Your task to perform on an android device: remove spam from my inbox in the gmail app Image 0: 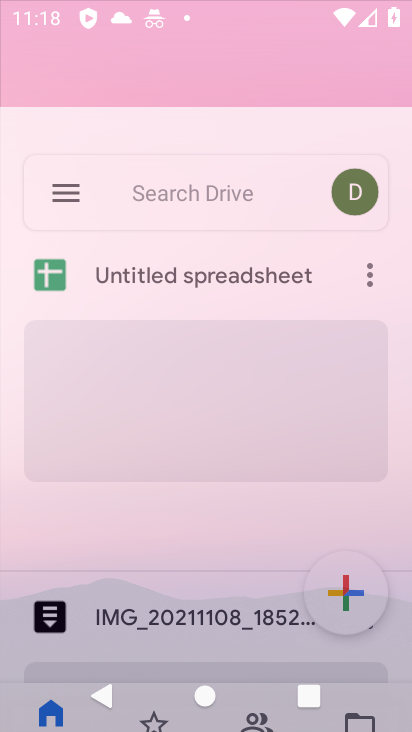
Step 0: press home button
Your task to perform on an android device: remove spam from my inbox in the gmail app Image 1: 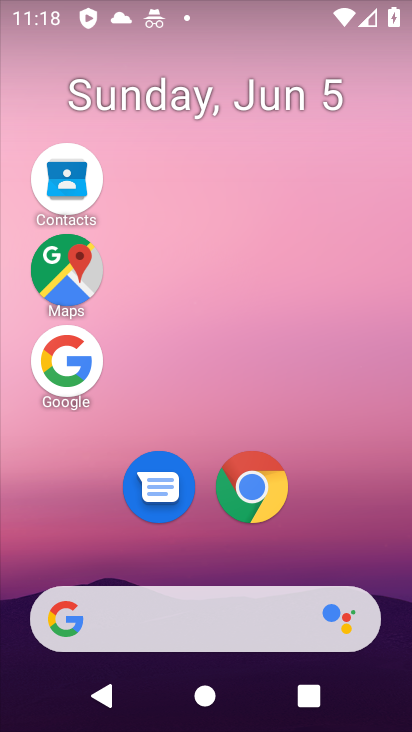
Step 1: drag from (247, 603) to (236, 101)
Your task to perform on an android device: remove spam from my inbox in the gmail app Image 2: 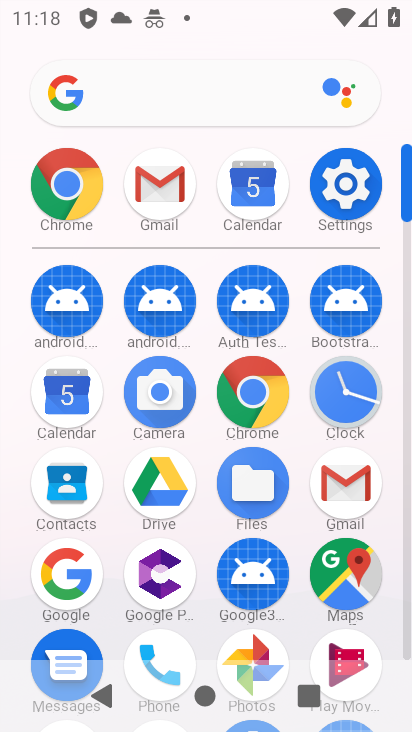
Step 2: click (356, 507)
Your task to perform on an android device: remove spam from my inbox in the gmail app Image 3: 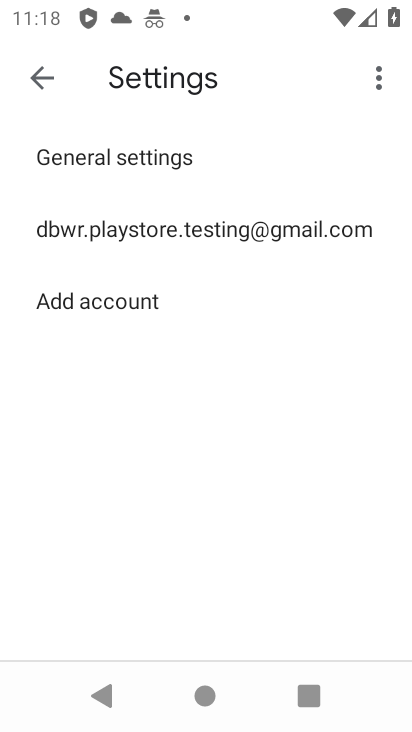
Step 3: click (40, 87)
Your task to perform on an android device: remove spam from my inbox in the gmail app Image 4: 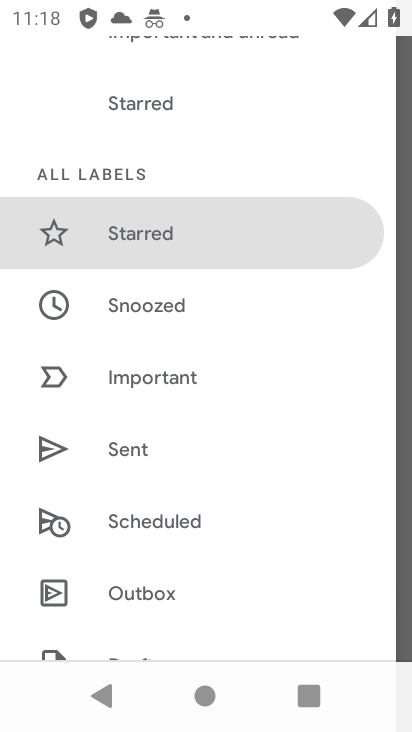
Step 4: drag from (141, 523) to (172, 207)
Your task to perform on an android device: remove spam from my inbox in the gmail app Image 5: 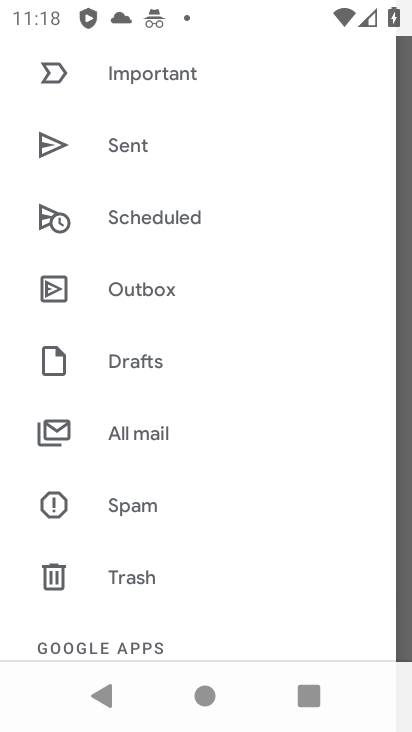
Step 5: drag from (158, 530) to (175, 291)
Your task to perform on an android device: remove spam from my inbox in the gmail app Image 6: 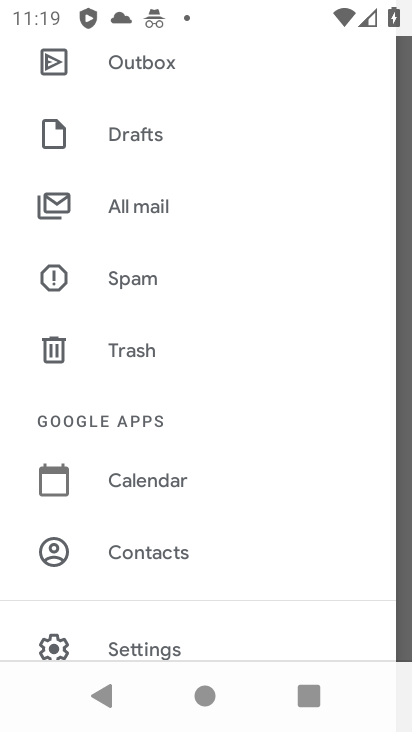
Step 6: click (132, 281)
Your task to perform on an android device: remove spam from my inbox in the gmail app Image 7: 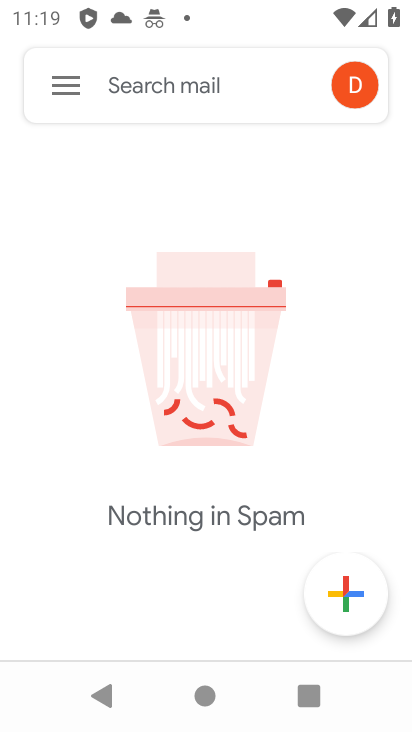
Step 7: task complete